Your task to perform on an android device: add a contact Image 0: 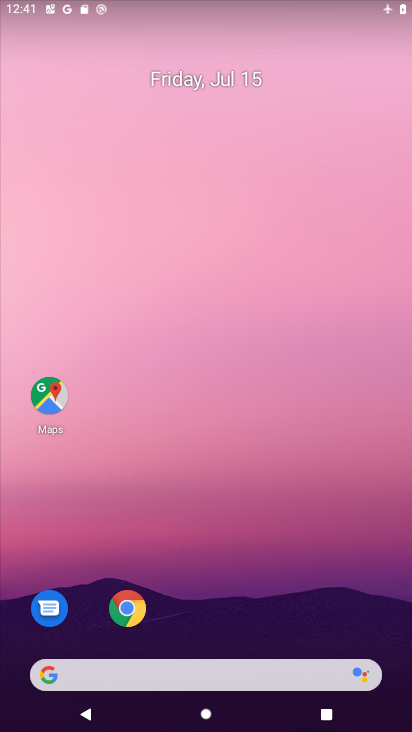
Step 0: drag from (288, 570) to (227, 172)
Your task to perform on an android device: add a contact Image 1: 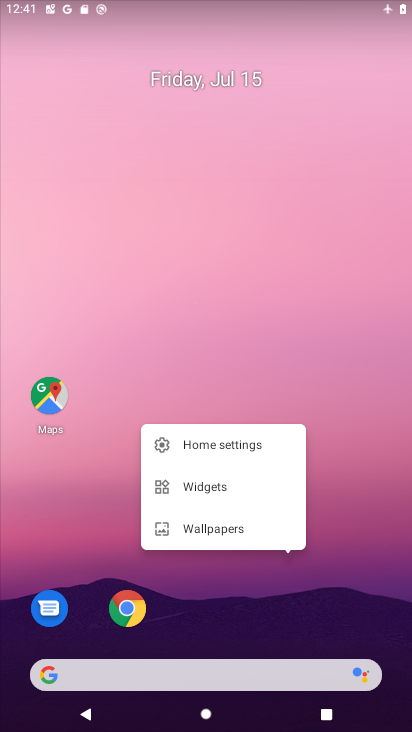
Step 1: click (202, 394)
Your task to perform on an android device: add a contact Image 2: 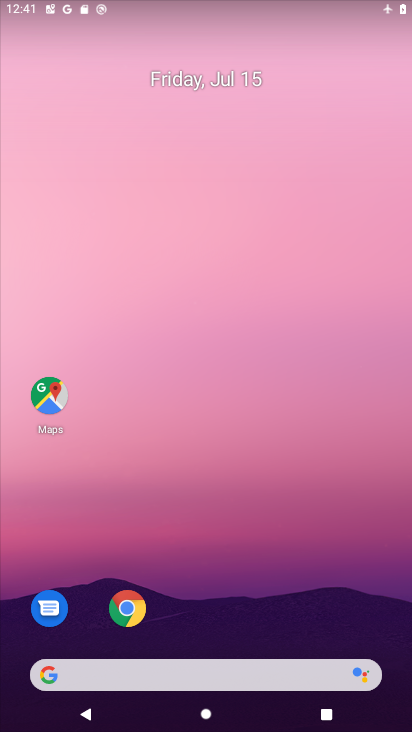
Step 2: drag from (209, 525) to (179, 153)
Your task to perform on an android device: add a contact Image 3: 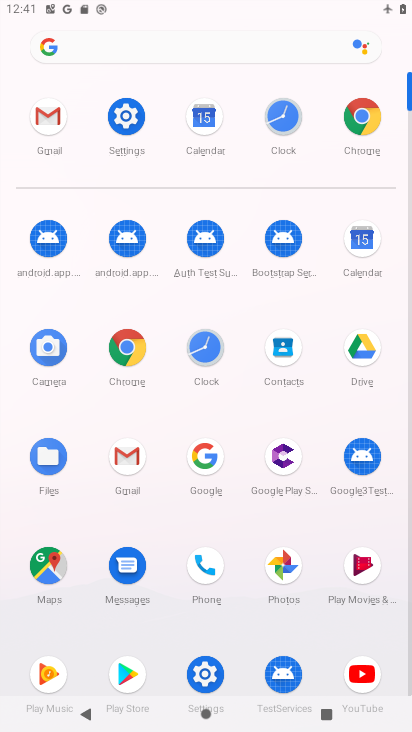
Step 3: click (278, 345)
Your task to perform on an android device: add a contact Image 4: 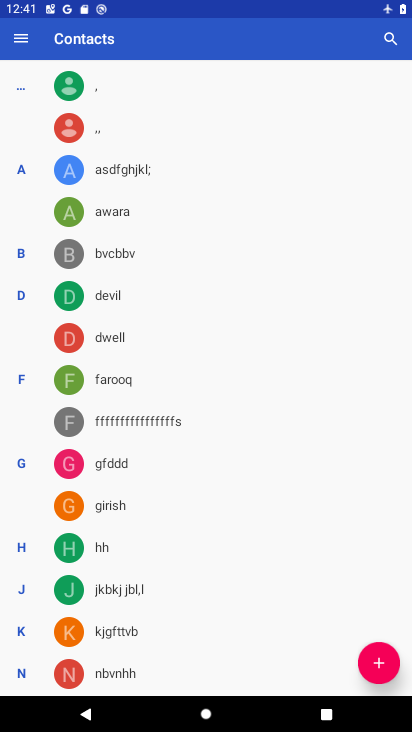
Step 4: click (376, 656)
Your task to perform on an android device: add a contact Image 5: 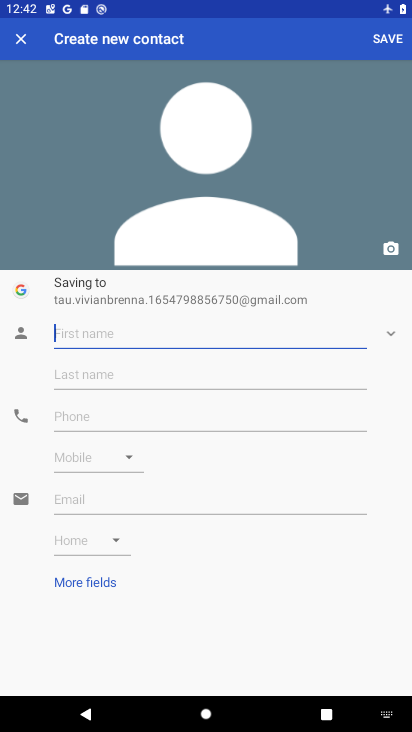
Step 5: type "asdfghjk"
Your task to perform on an android device: add a contact Image 6: 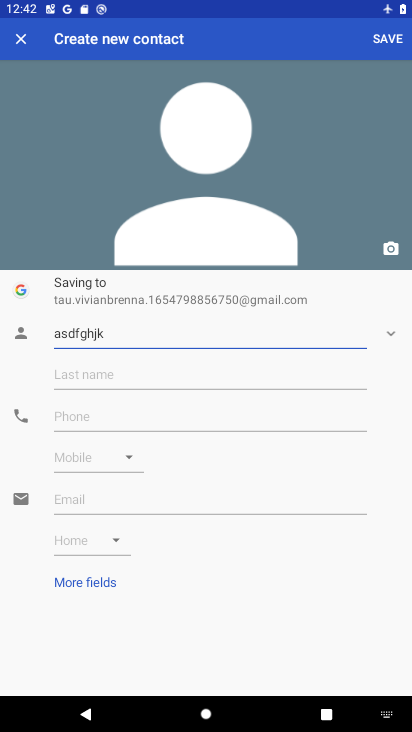
Step 6: click (93, 414)
Your task to perform on an android device: add a contact Image 7: 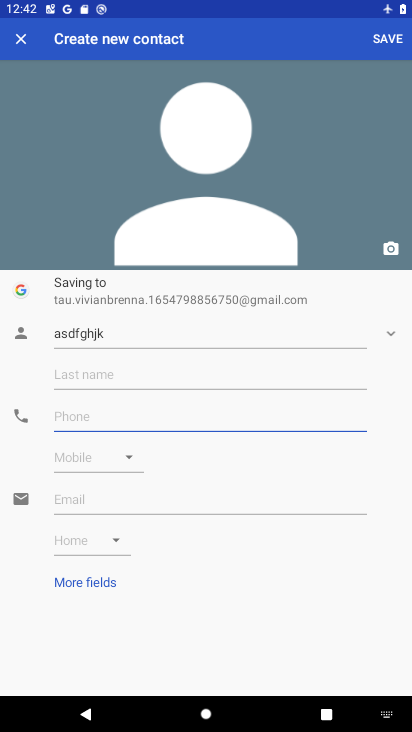
Step 7: type "876543"
Your task to perform on an android device: add a contact Image 8: 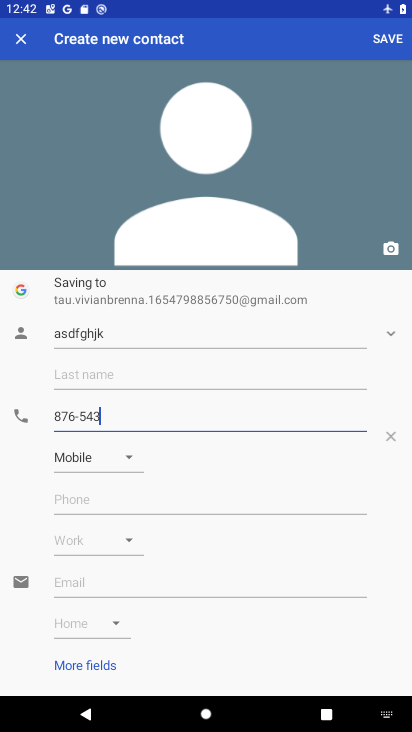
Step 8: click (388, 35)
Your task to perform on an android device: add a contact Image 9: 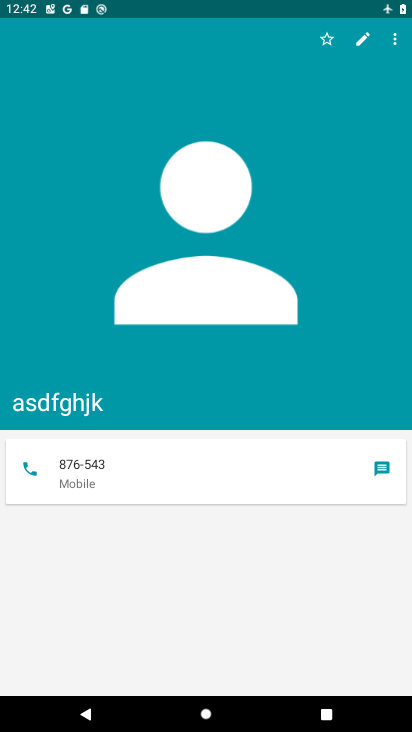
Step 9: task complete